Your task to perform on an android device: create a new album in the google photos Image 0: 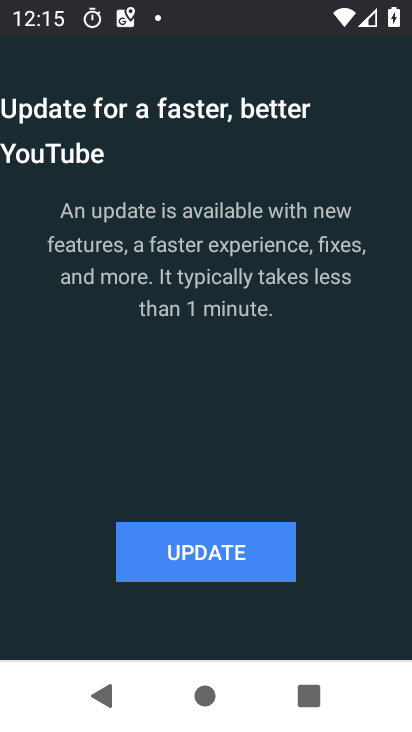
Step 0: click (206, 473)
Your task to perform on an android device: create a new album in the google photos Image 1: 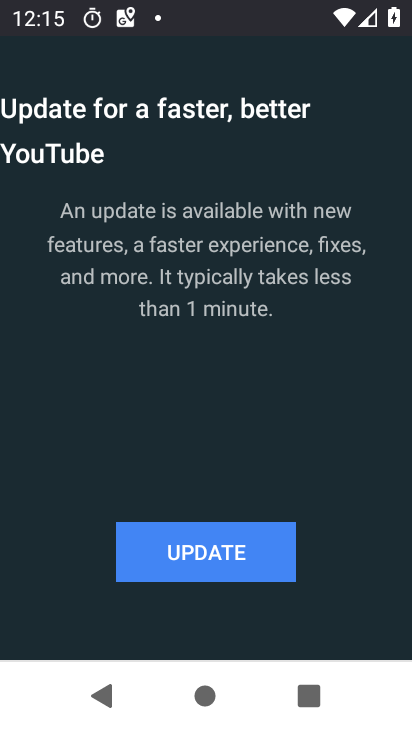
Step 1: press home button
Your task to perform on an android device: create a new album in the google photos Image 2: 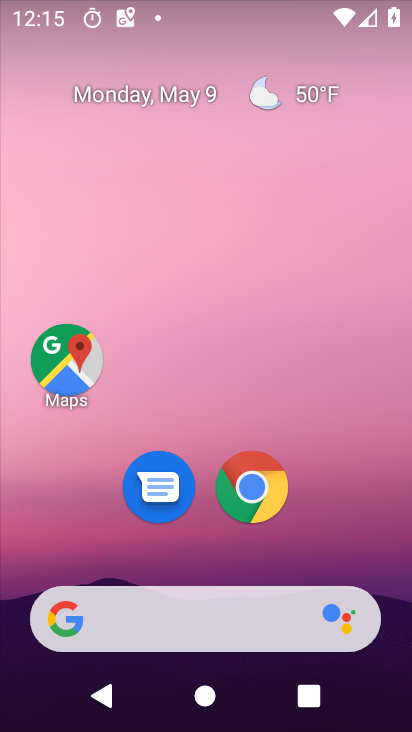
Step 2: drag from (290, 505) to (411, 43)
Your task to perform on an android device: create a new album in the google photos Image 3: 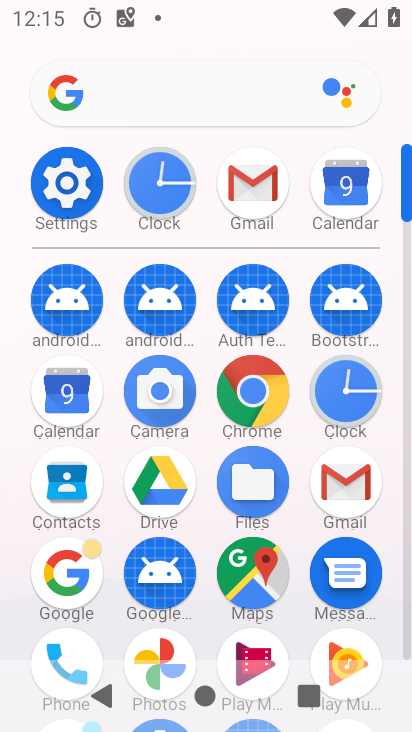
Step 3: click (170, 645)
Your task to perform on an android device: create a new album in the google photos Image 4: 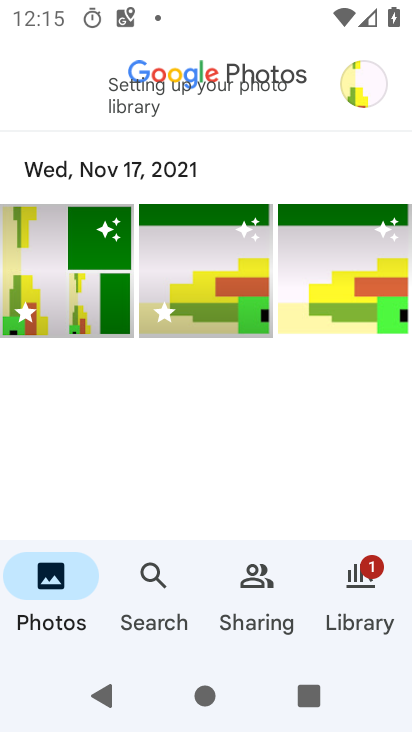
Step 4: click (368, 91)
Your task to perform on an android device: create a new album in the google photos Image 5: 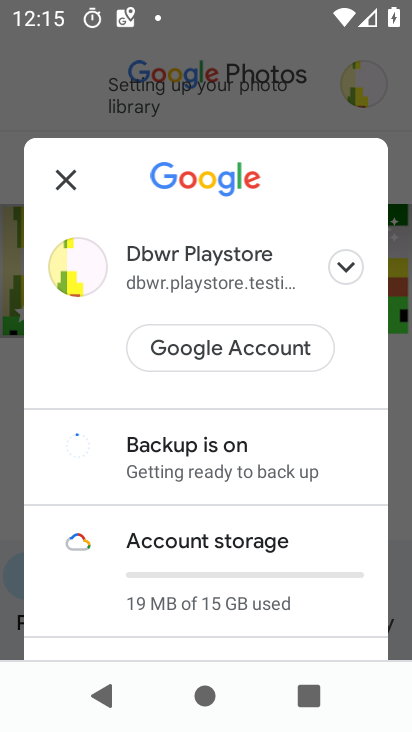
Step 5: click (305, 110)
Your task to perform on an android device: create a new album in the google photos Image 6: 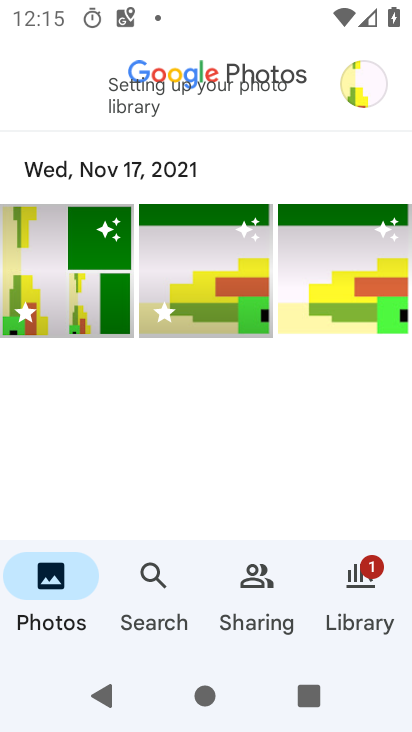
Step 6: click (365, 570)
Your task to perform on an android device: create a new album in the google photos Image 7: 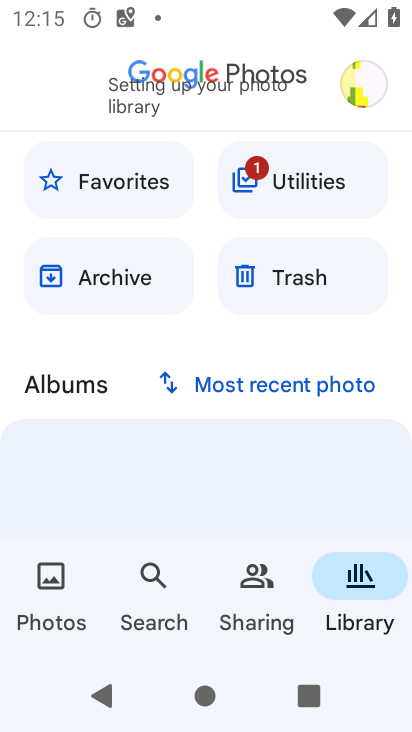
Step 7: drag from (190, 449) to (243, 90)
Your task to perform on an android device: create a new album in the google photos Image 8: 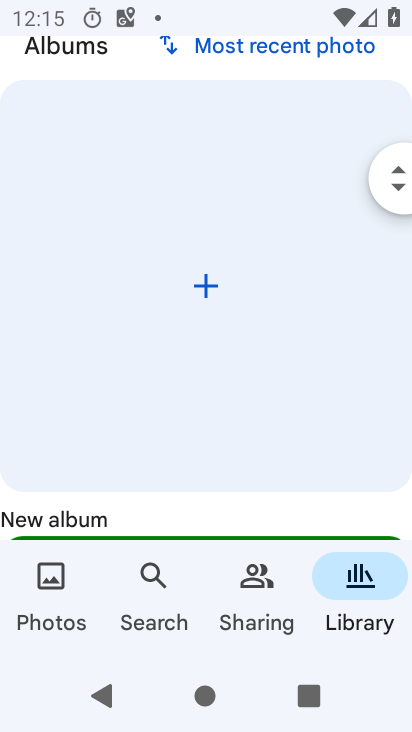
Step 8: click (202, 310)
Your task to perform on an android device: create a new album in the google photos Image 9: 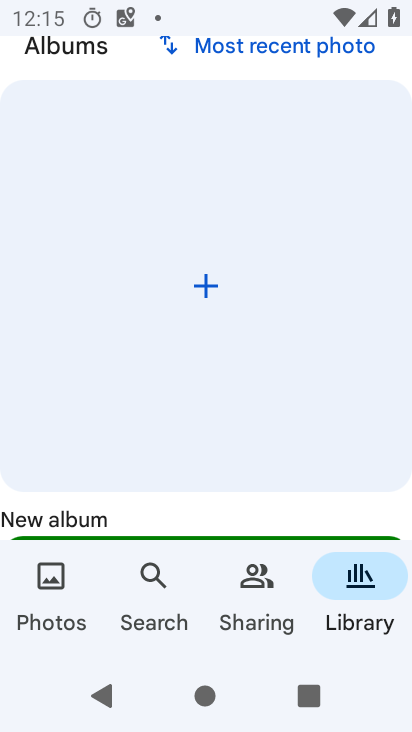
Step 9: click (206, 283)
Your task to perform on an android device: create a new album in the google photos Image 10: 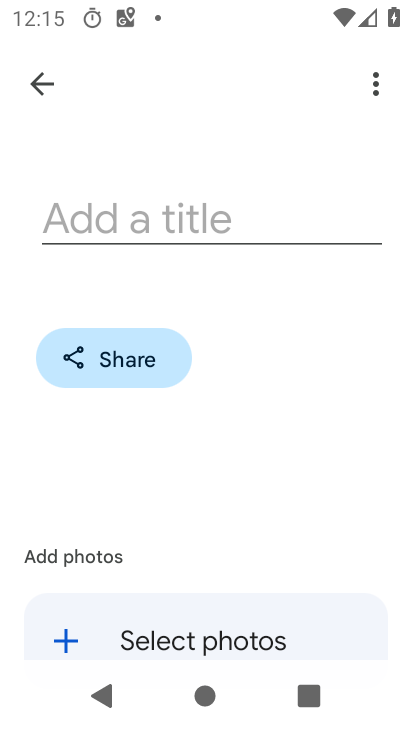
Step 10: click (149, 204)
Your task to perform on an android device: create a new album in the google photos Image 11: 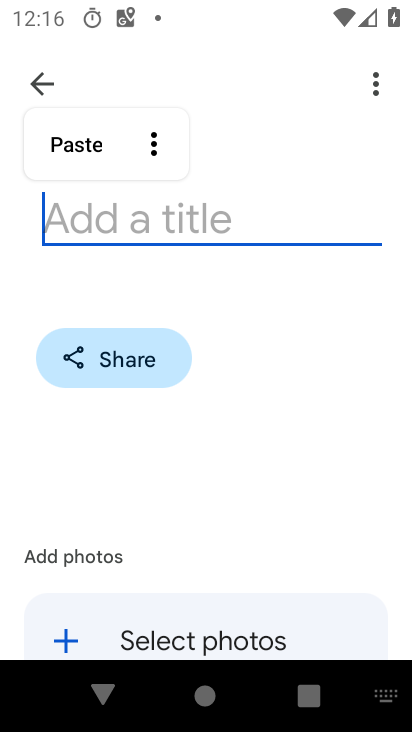
Step 11: type "123"
Your task to perform on an android device: create a new album in the google photos Image 12: 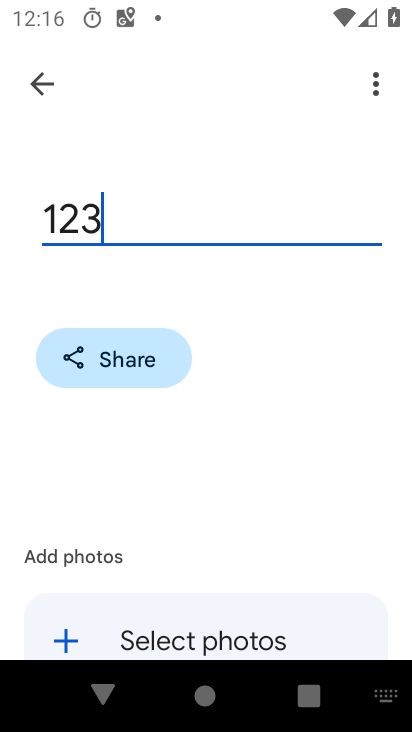
Step 12: click (195, 631)
Your task to perform on an android device: create a new album in the google photos Image 13: 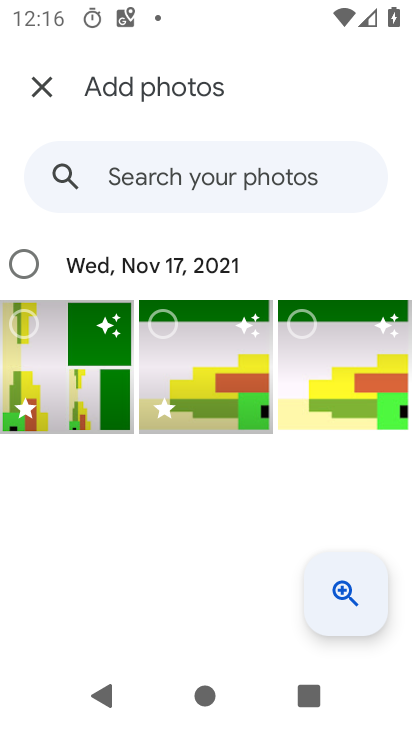
Step 13: click (71, 360)
Your task to perform on an android device: create a new album in the google photos Image 14: 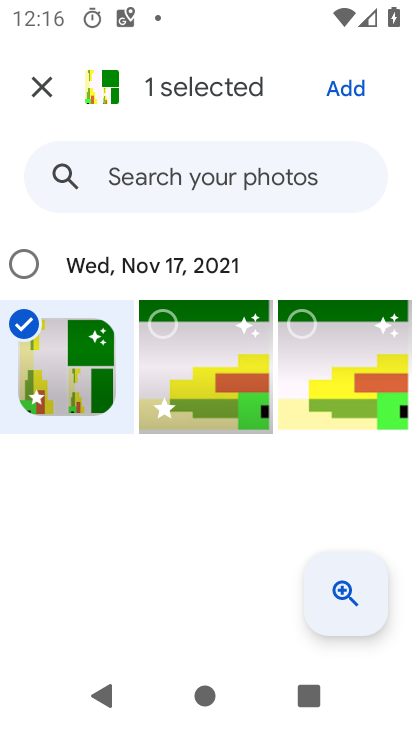
Step 14: task complete